Your task to perform on an android device: turn on data saver in the chrome app Image 0: 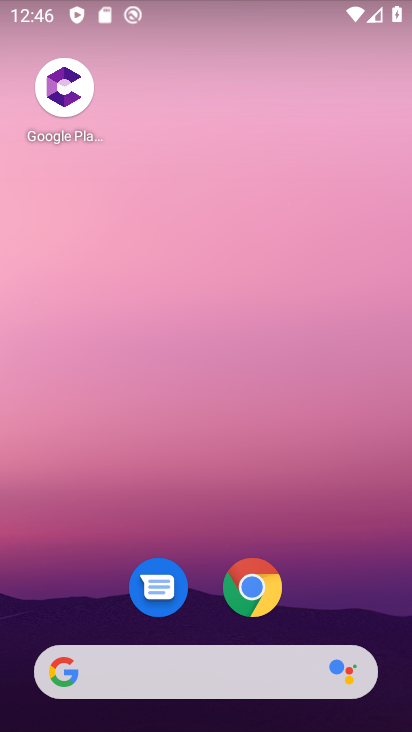
Step 0: click (248, 591)
Your task to perform on an android device: turn on data saver in the chrome app Image 1: 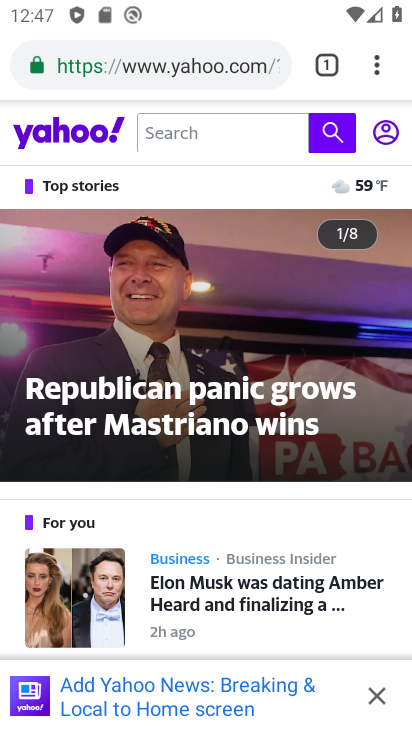
Step 1: click (377, 61)
Your task to perform on an android device: turn on data saver in the chrome app Image 2: 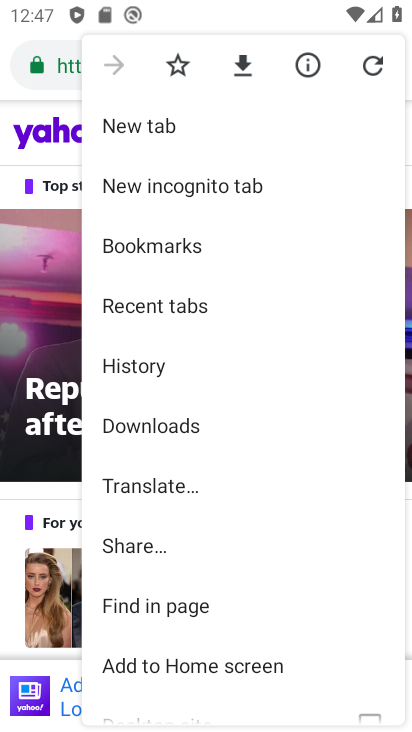
Step 2: drag from (259, 602) to (254, 171)
Your task to perform on an android device: turn on data saver in the chrome app Image 3: 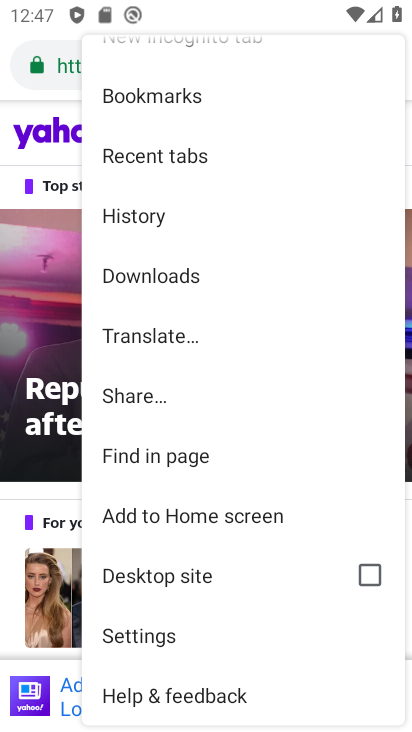
Step 3: click (136, 635)
Your task to perform on an android device: turn on data saver in the chrome app Image 4: 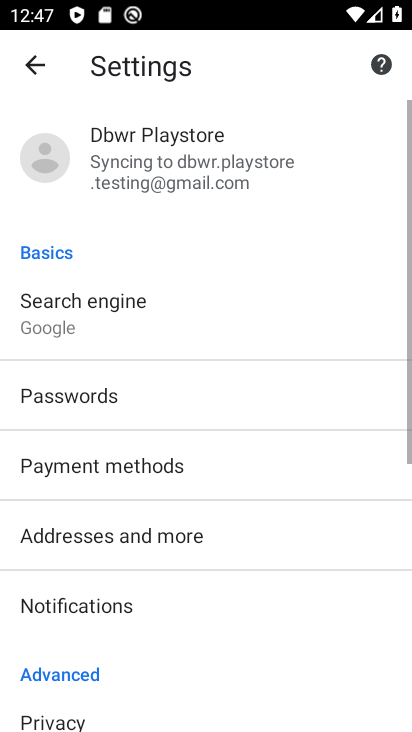
Step 4: drag from (184, 592) to (182, 213)
Your task to perform on an android device: turn on data saver in the chrome app Image 5: 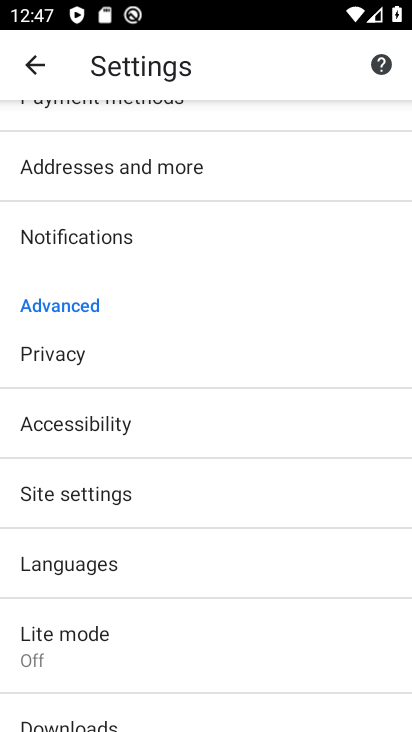
Step 5: click (72, 631)
Your task to perform on an android device: turn on data saver in the chrome app Image 6: 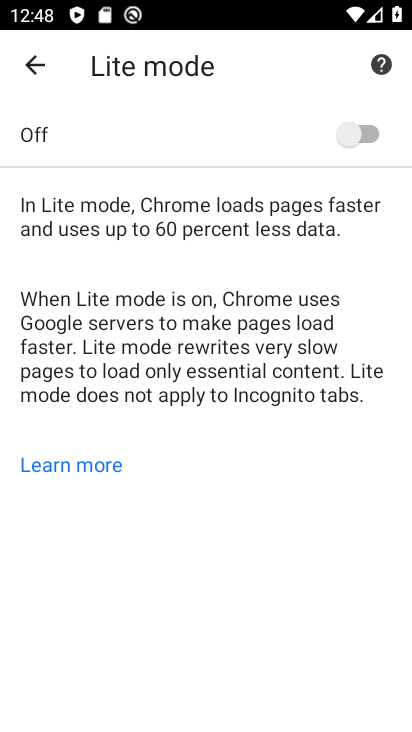
Step 6: click (348, 131)
Your task to perform on an android device: turn on data saver in the chrome app Image 7: 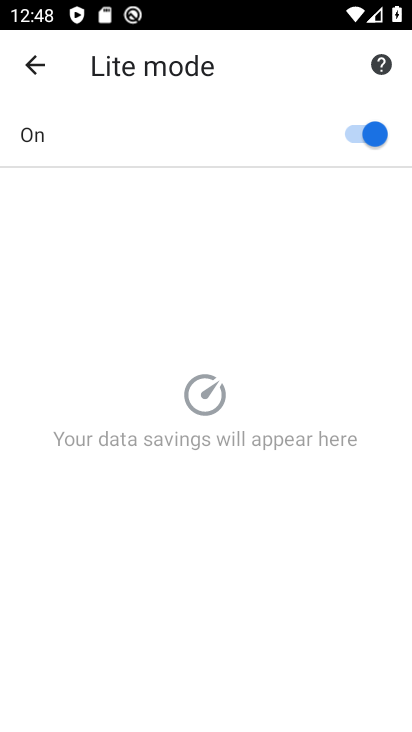
Step 7: task complete